Your task to perform on an android device: When is my next appointment? Image 0: 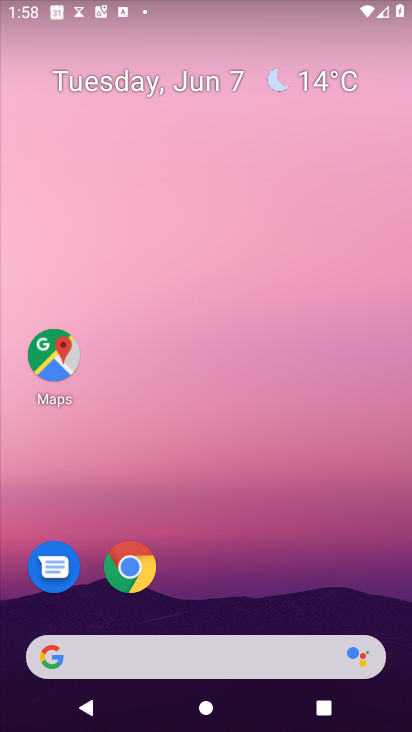
Step 0: drag from (228, 633) to (229, 127)
Your task to perform on an android device: When is my next appointment? Image 1: 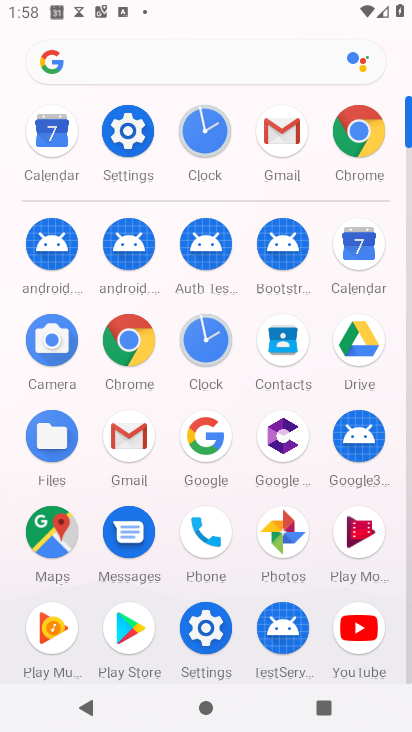
Step 1: click (349, 267)
Your task to perform on an android device: When is my next appointment? Image 2: 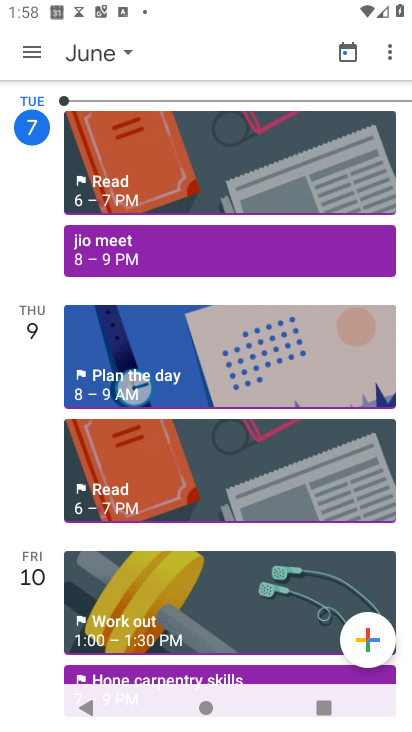
Step 2: click (122, 56)
Your task to perform on an android device: When is my next appointment? Image 3: 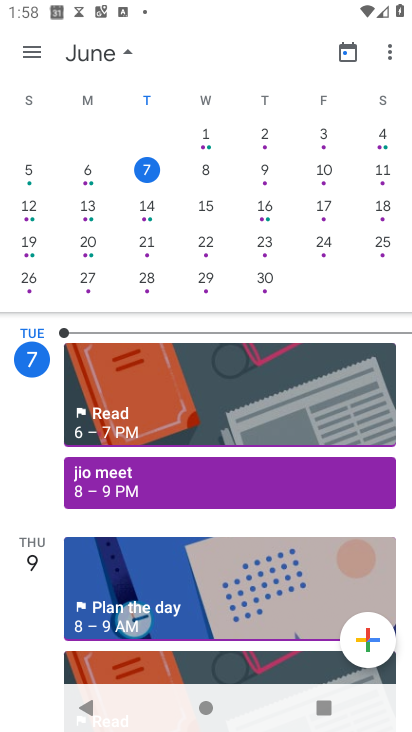
Step 3: click (139, 172)
Your task to perform on an android device: When is my next appointment? Image 4: 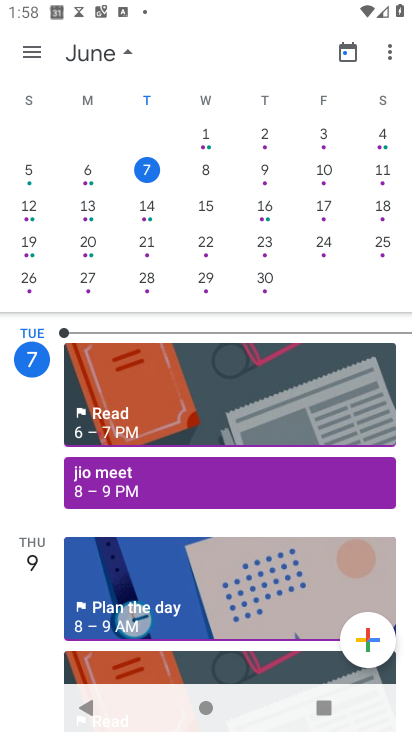
Step 4: task complete